Your task to perform on an android device: visit the assistant section in the google photos Image 0: 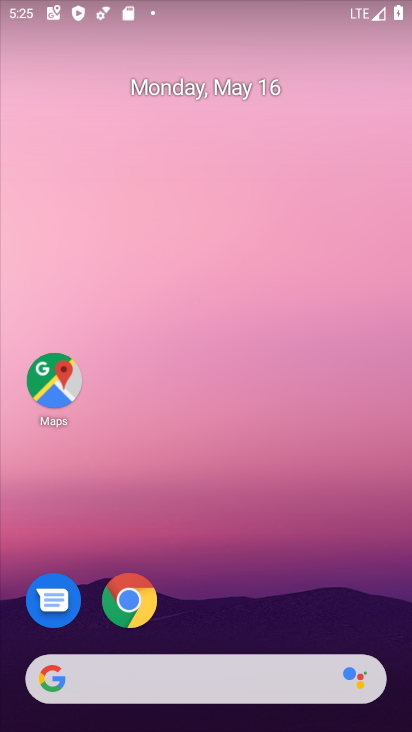
Step 0: drag from (233, 652) to (202, 7)
Your task to perform on an android device: visit the assistant section in the google photos Image 1: 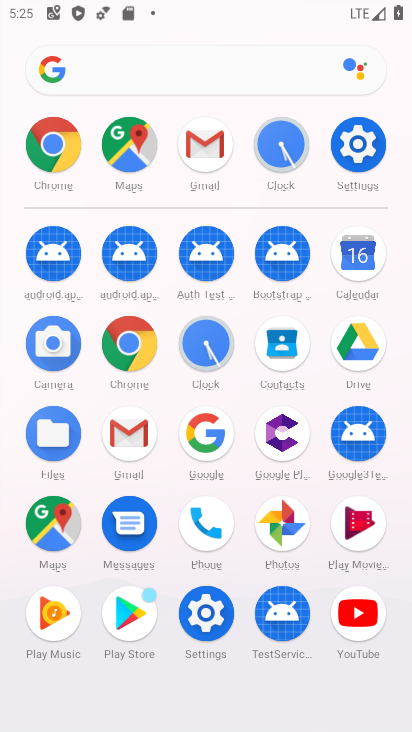
Step 1: click (271, 522)
Your task to perform on an android device: visit the assistant section in the google photos Image 2: 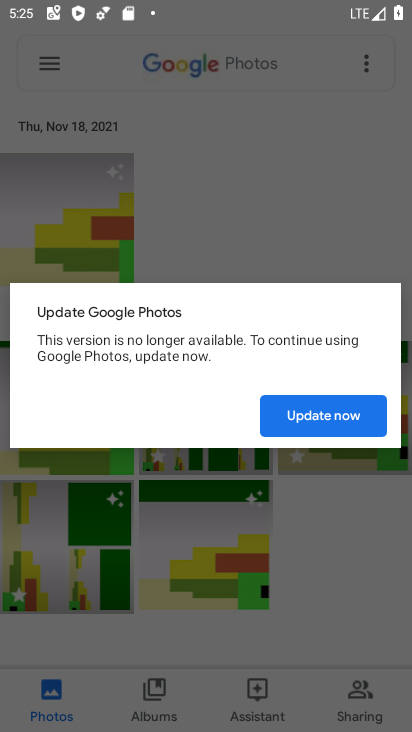
Step 2: click (265, 694)
Your task to perform on an android device: visit the assistant section in the google photos Image 3: 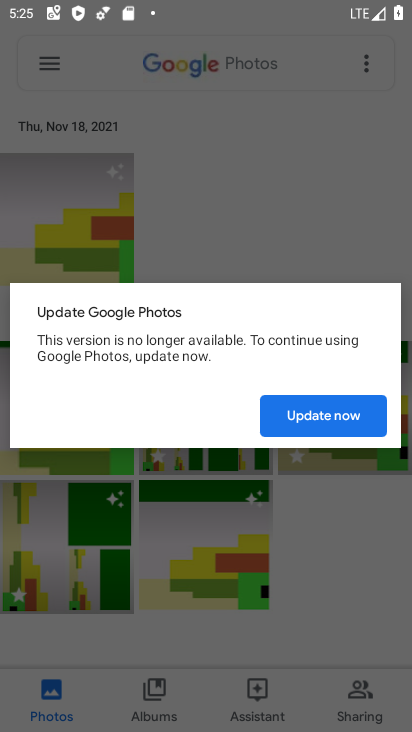
Step 3: click (344, 404)
Your task to perform on an android device: visit the assistant section in the google photos Image 4: 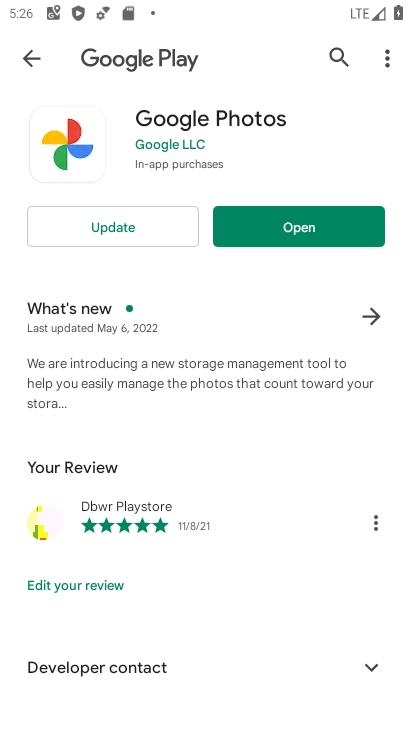
Step 4: click (301, 240)
Your task to perform on an android device: visit the assistant section in the google photos Image 5: 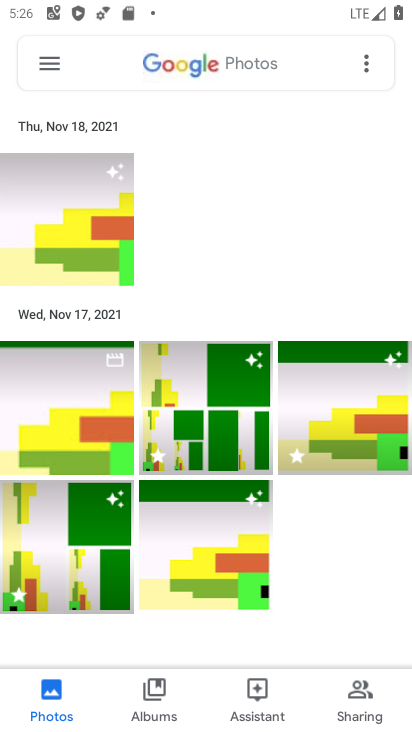
Step 5: click (252, 693)
Your task to perform on an android device: visit the assistant section in the google photos Image 6: 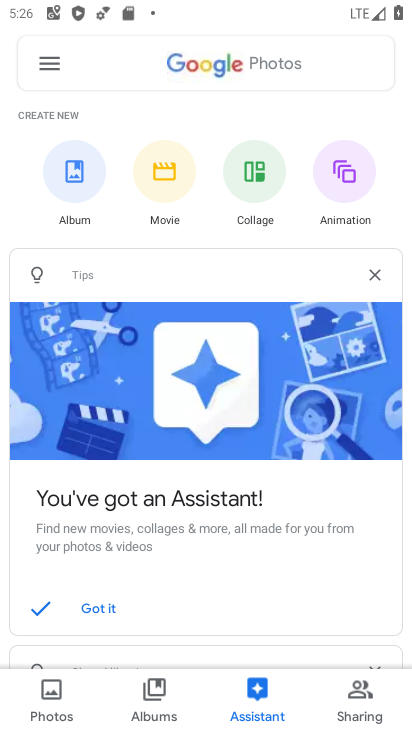
Step 6: task complete